Your task to perform on an android device: open app "HBO Max: Stream TV & Movies" (install if not already installed) and enter user name: "faring@outlook.com" and password: "appropriately" Image 0: 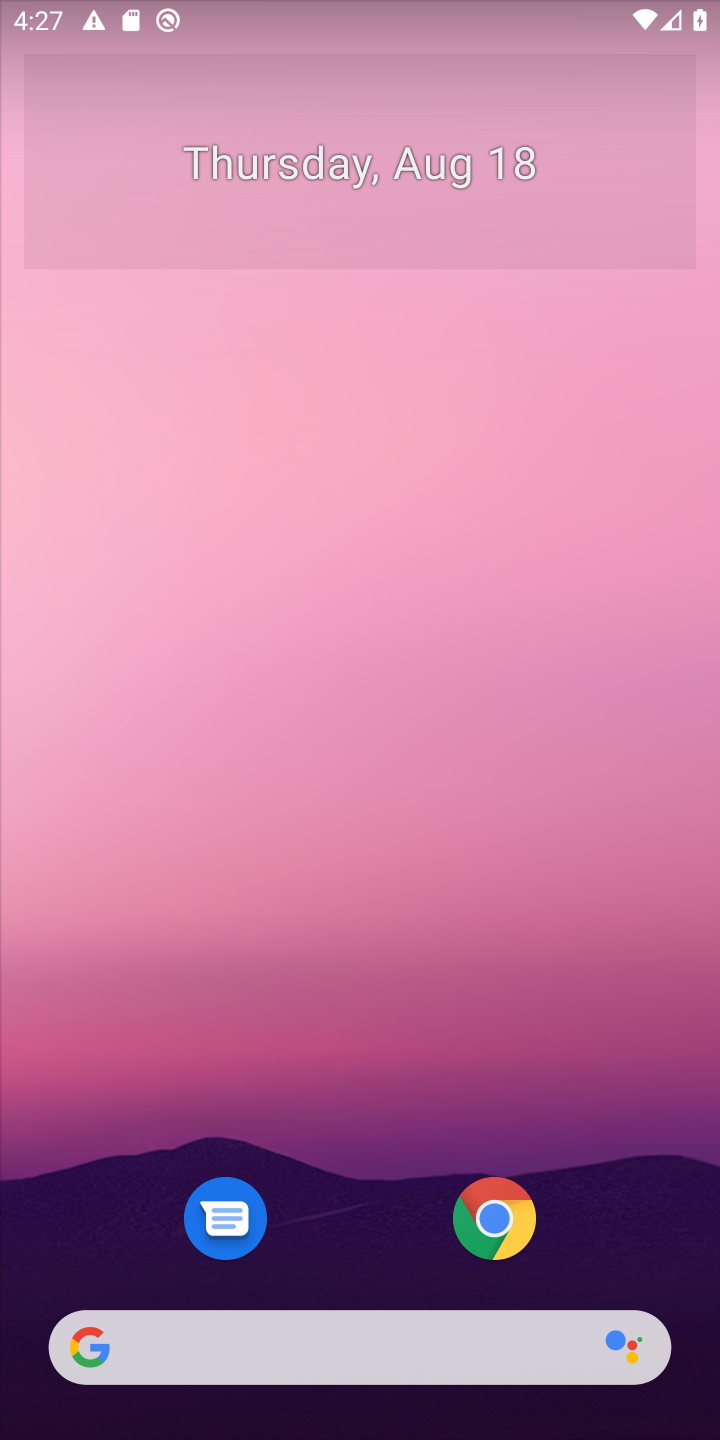
Step 0: drag from (381, 1122) to (353, 298)
Your task to perform on an android device: open app "HBO Max: Stream TV & Movies" (install if not already installed) and enter user name: "faring@outlook.com" and password: "appropriately" Image 1: 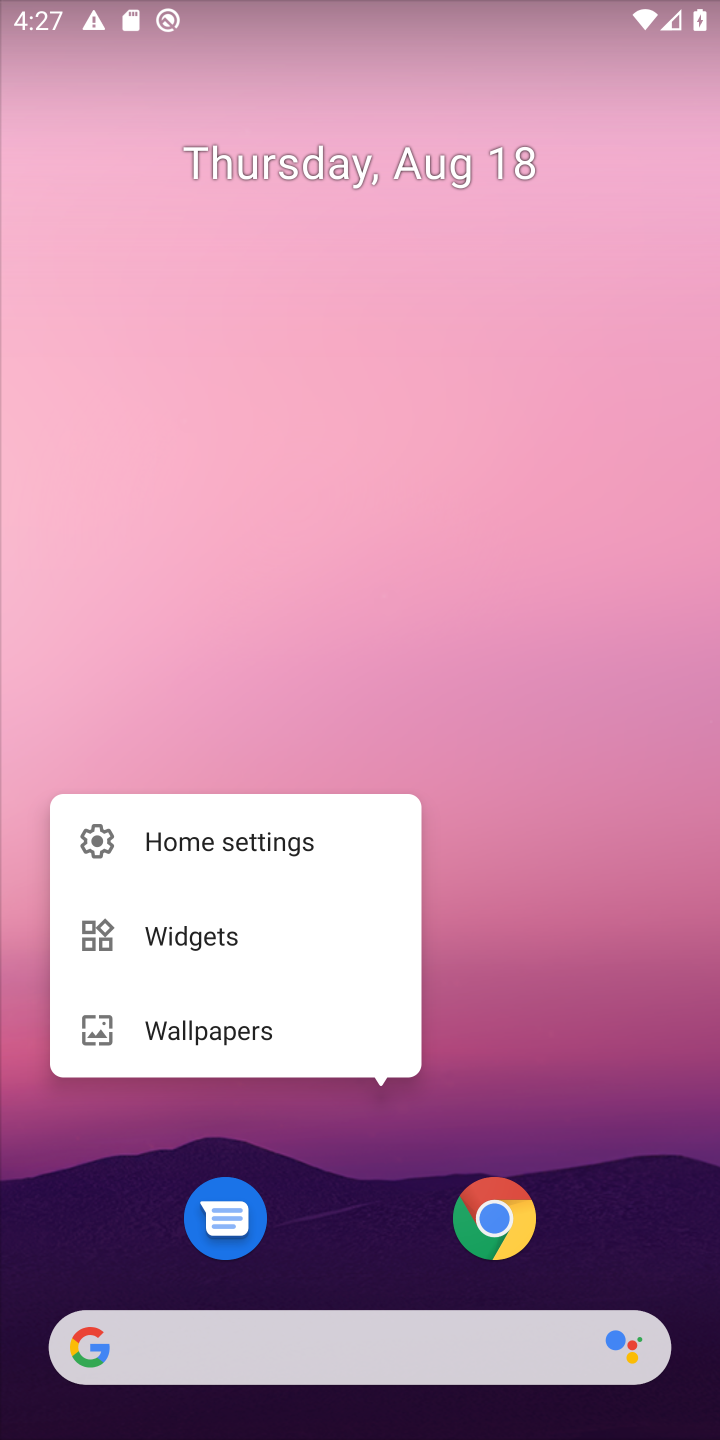
Step 1: click (376, 735)
Your task to perform on an android device: open app "HBO Max: Stream TV & Movies" (install if not already installed) and enter user name: "faring@outlook.com" and password: "appropriately" Image 2: 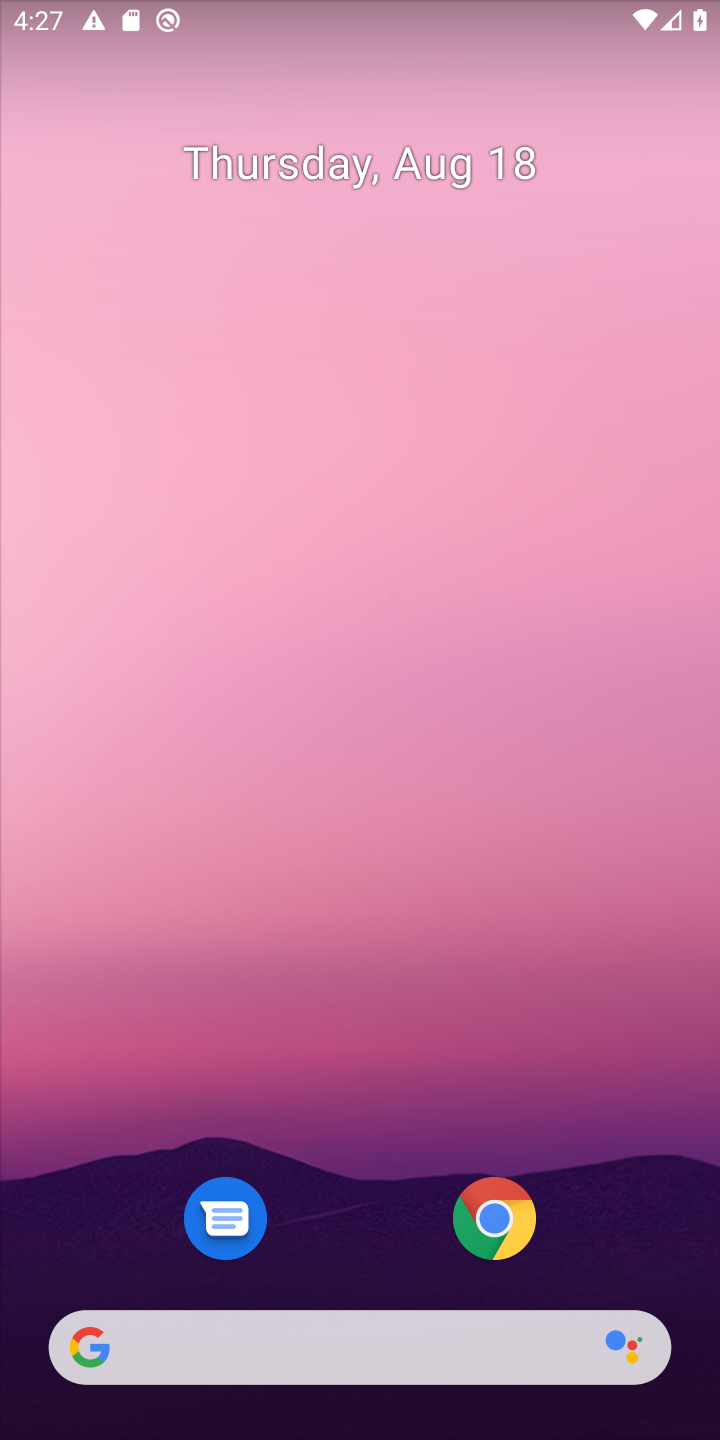
Step 2: drag from (313, 1116) to (372, 296)
Your task to perform on an android device: open app "HBO Max: Stream TV & Movies" (install if not already installed) and enter user name: "faring@outlook.com" and password: "appropriately" Image 3: 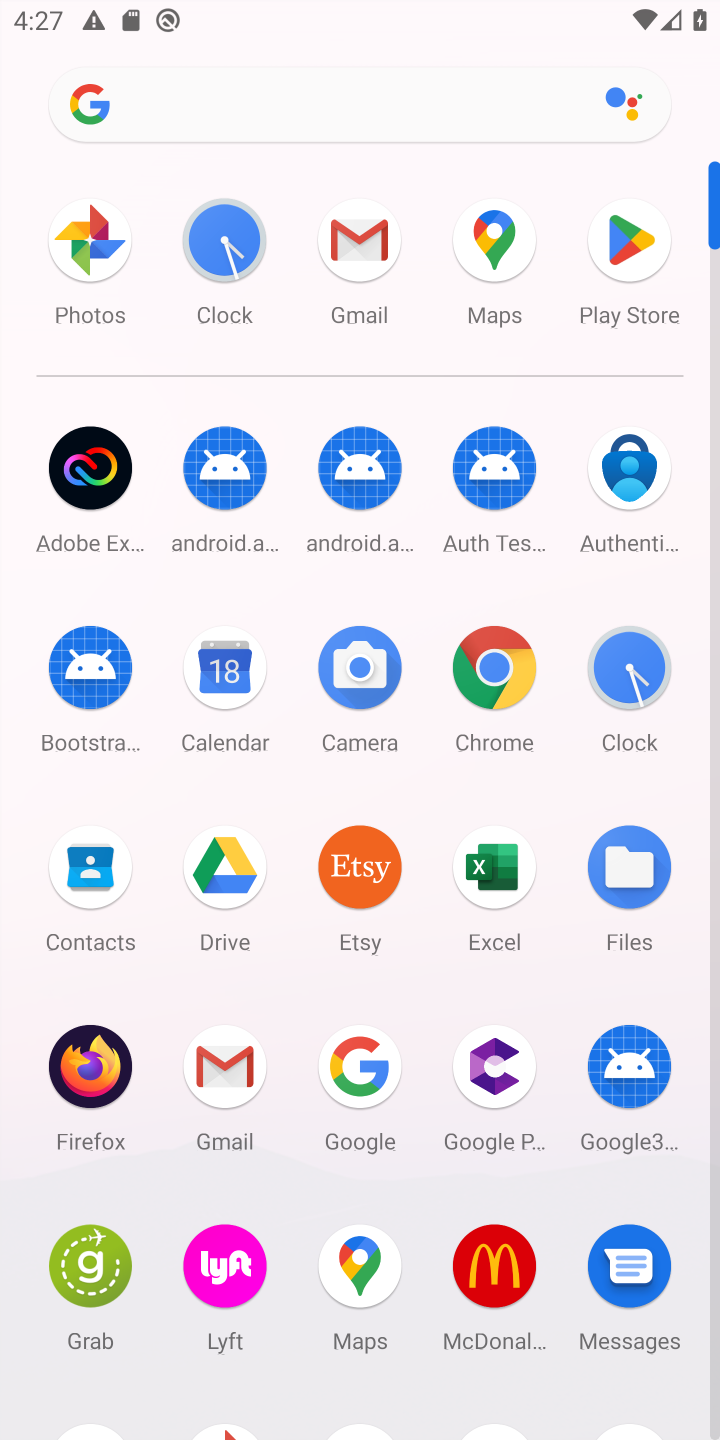
Step 3: click (625, 255)
Your task to perform on an android device: open app "HBO Max: Stream TV & Movies" (install if not already installed) and enter user name: "faring@outlook.com" and password: "appropriately" Image 4: 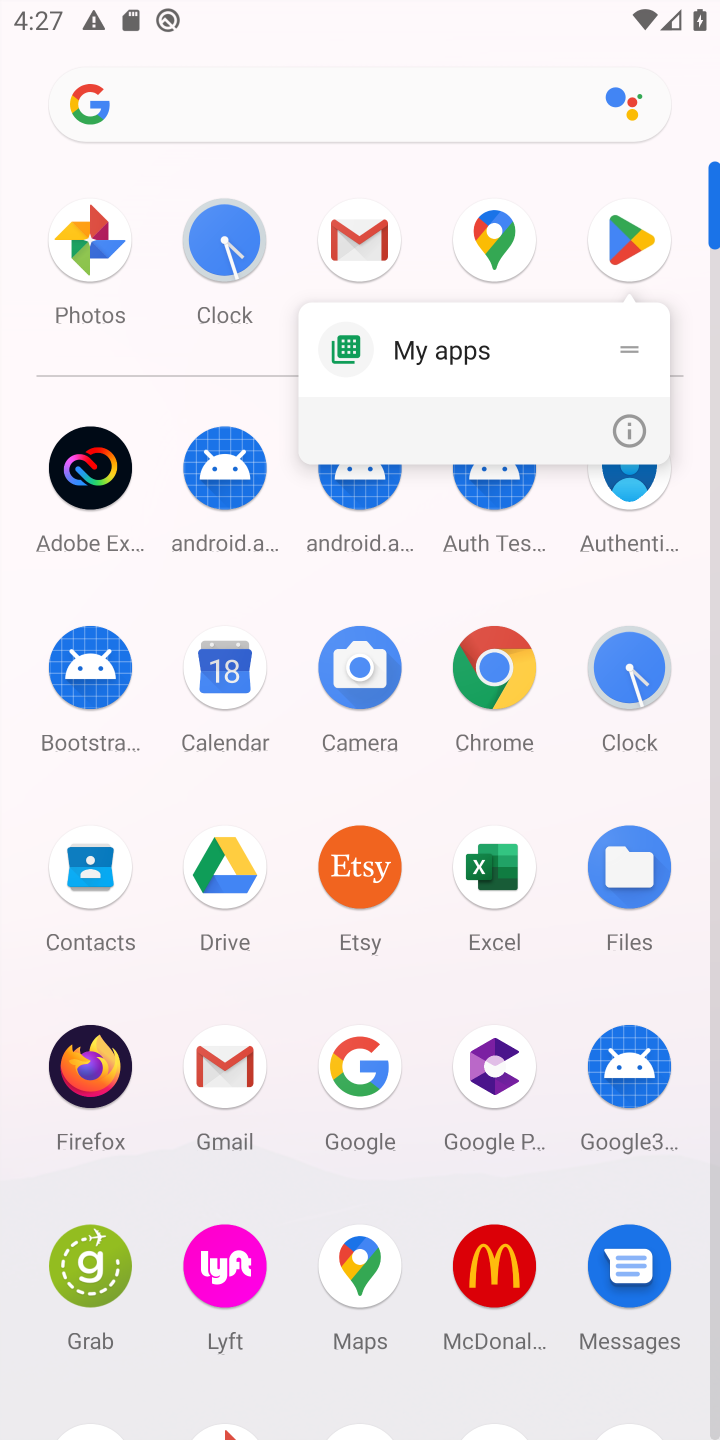
Step 4: click (625, 255)
Your task to perform on an android device: open app "HBO Max: Stream TV & Movies" (install if not already installed) and enter user name: "faring@outlook.com" and password: "appropriately" Image 5: 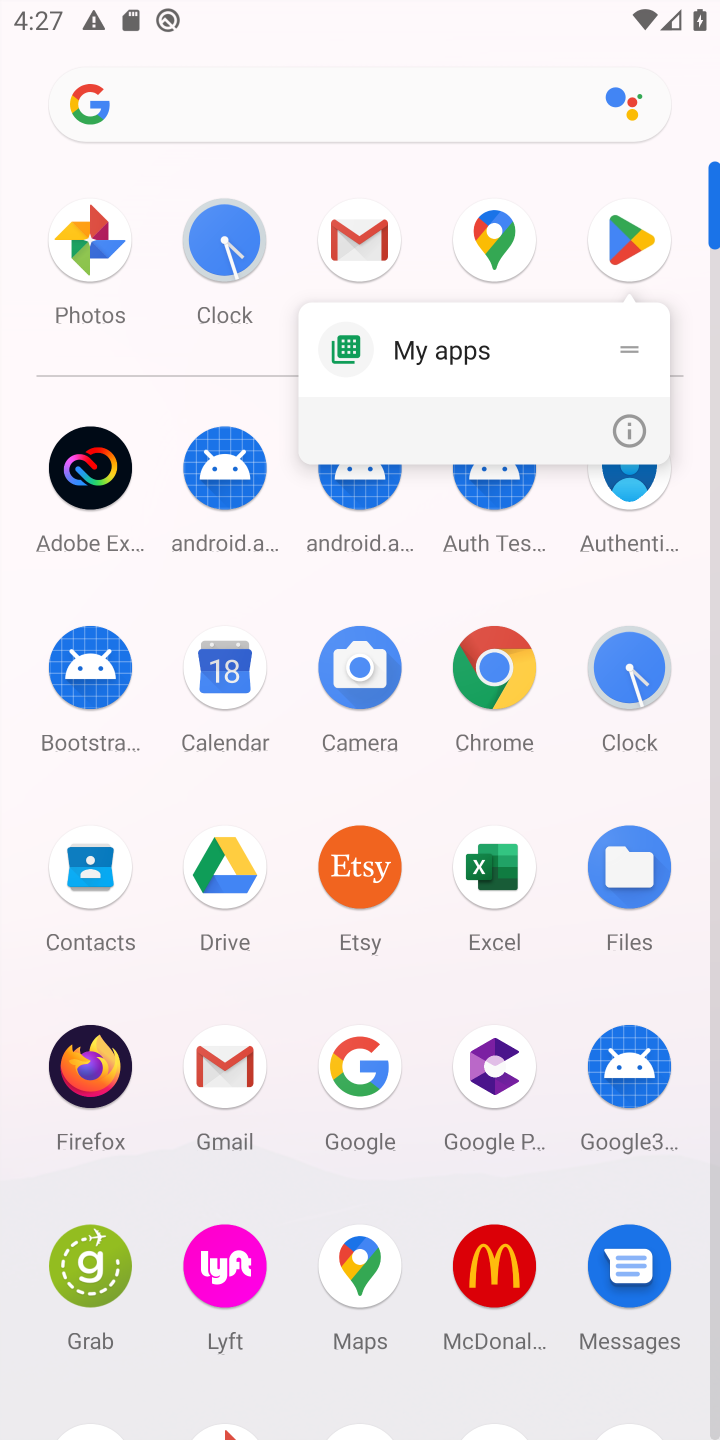
Step 5: click (623, 244)
Your task to perform on an android device: open app "HBO Max: Stream TV & Movies" (install if not already installed) and enter user name: "faring@outlook.com" and password: "appropriately" Image 6: 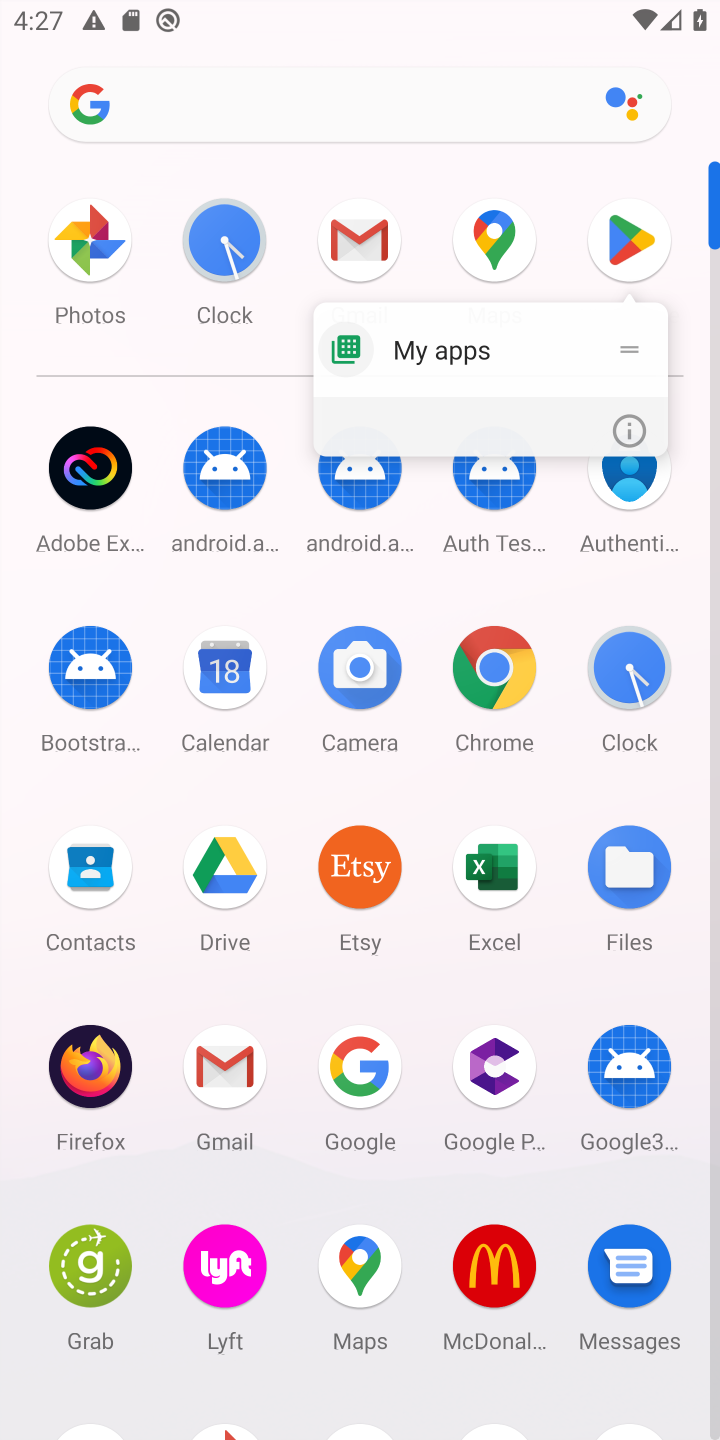
Step 6: click (656, 231)
Your task to perform on an android device: open app "HBO Max: Stream TV & Movies" (install if not already installed) and enter user name: "faring@outlook.com" and password: "appropriately" Image 7: 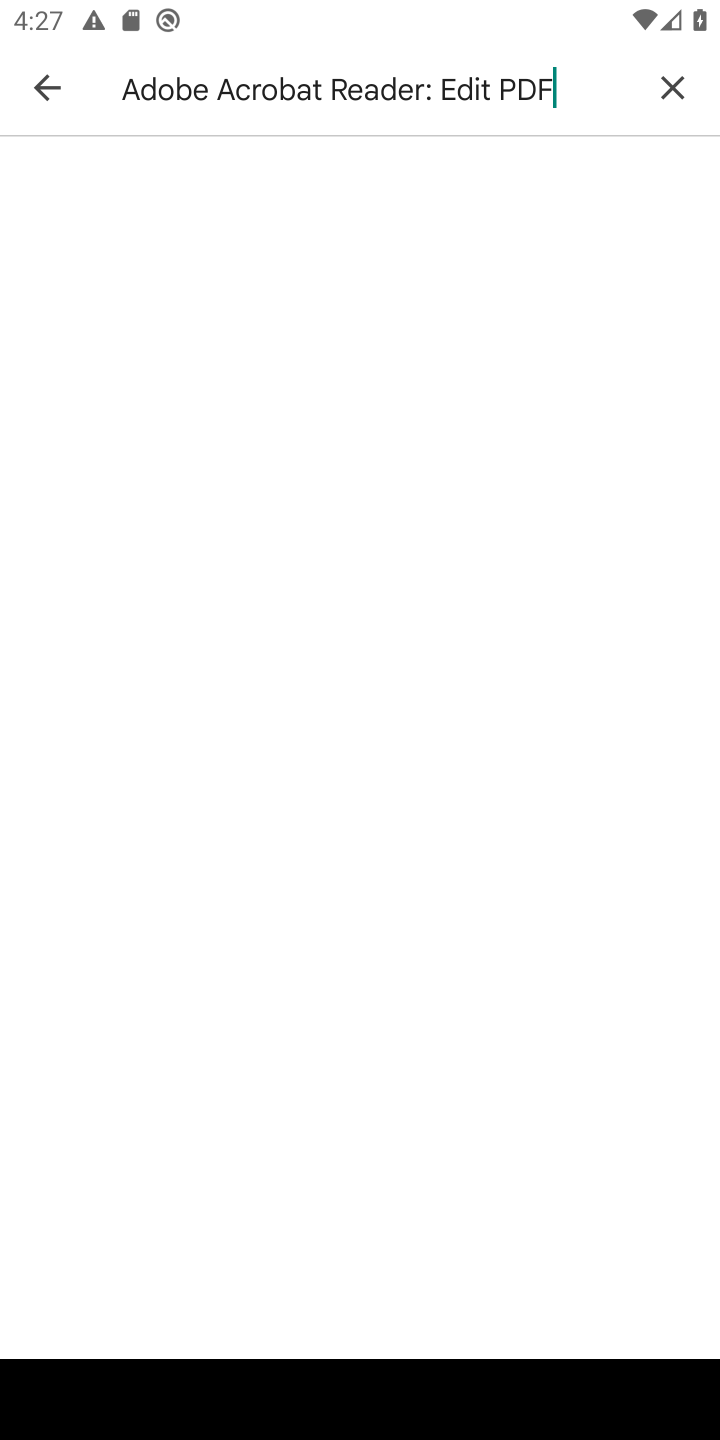
Step 7: click (665, 75)
Your task to perform on an android device: open app "HBO Max: Stream TV & Movies" (install if not already installed) and enter user name: "faring@outlook.com" and password: "appropriately" Image 8: 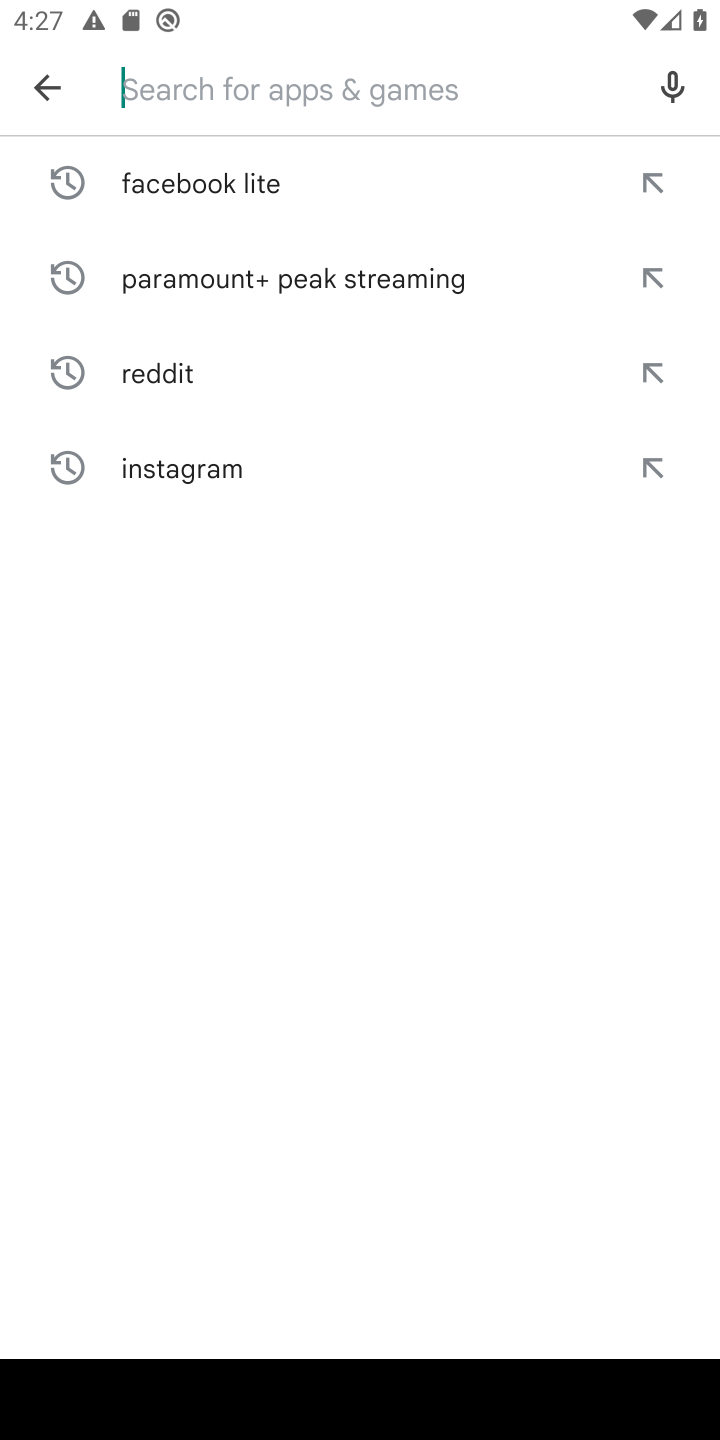
Step 8: type "HBO Max: Stream TV & Movies"
Your task to perform on an android device: open app "HBO Max: Stream TV & Movies" (install if not already installed) and enter user name: "faring@outlook.com" and password: "appropriately" Image 9: 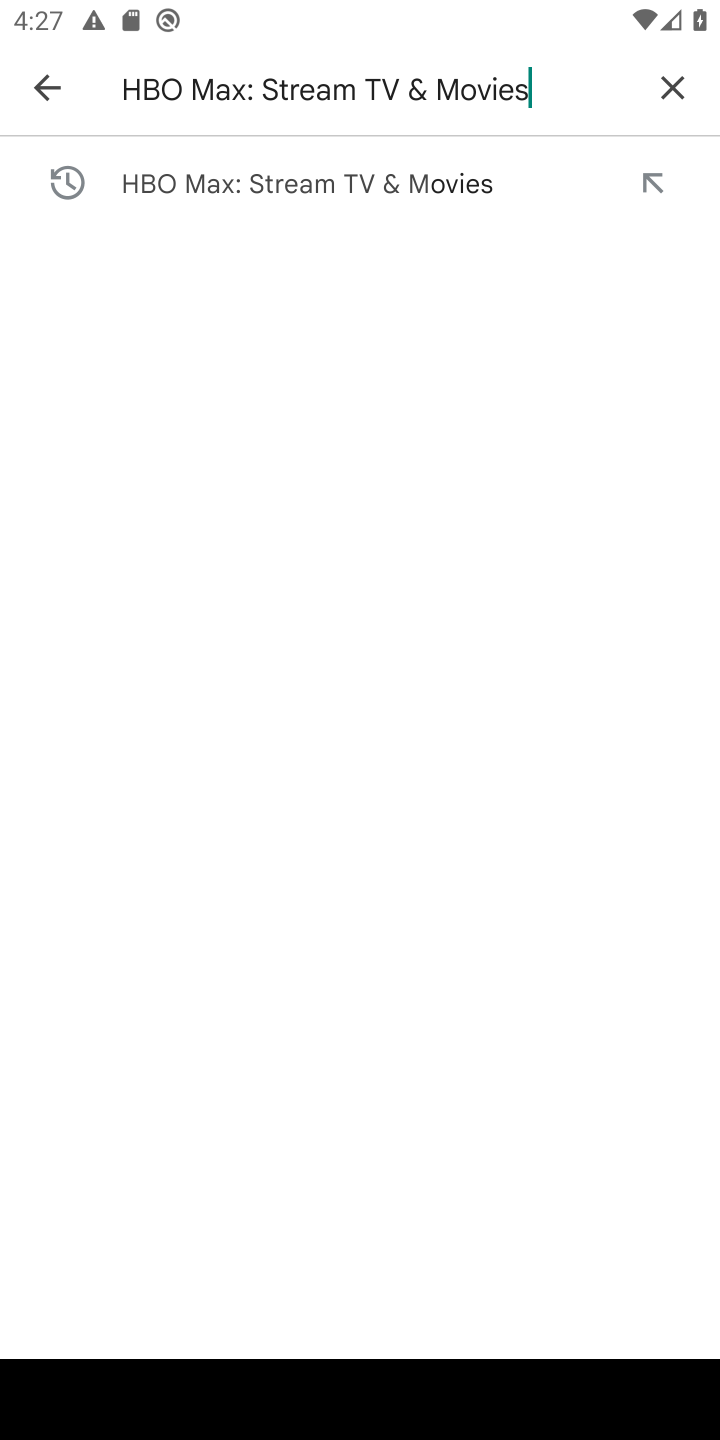
Step 9: type ""
Your task to perform on an android device: open app "HBO Max: Stream TV & Movies" (install if not already installed) and enter user name: "faring@outlook.com" and password: "appropriately" Image 10: 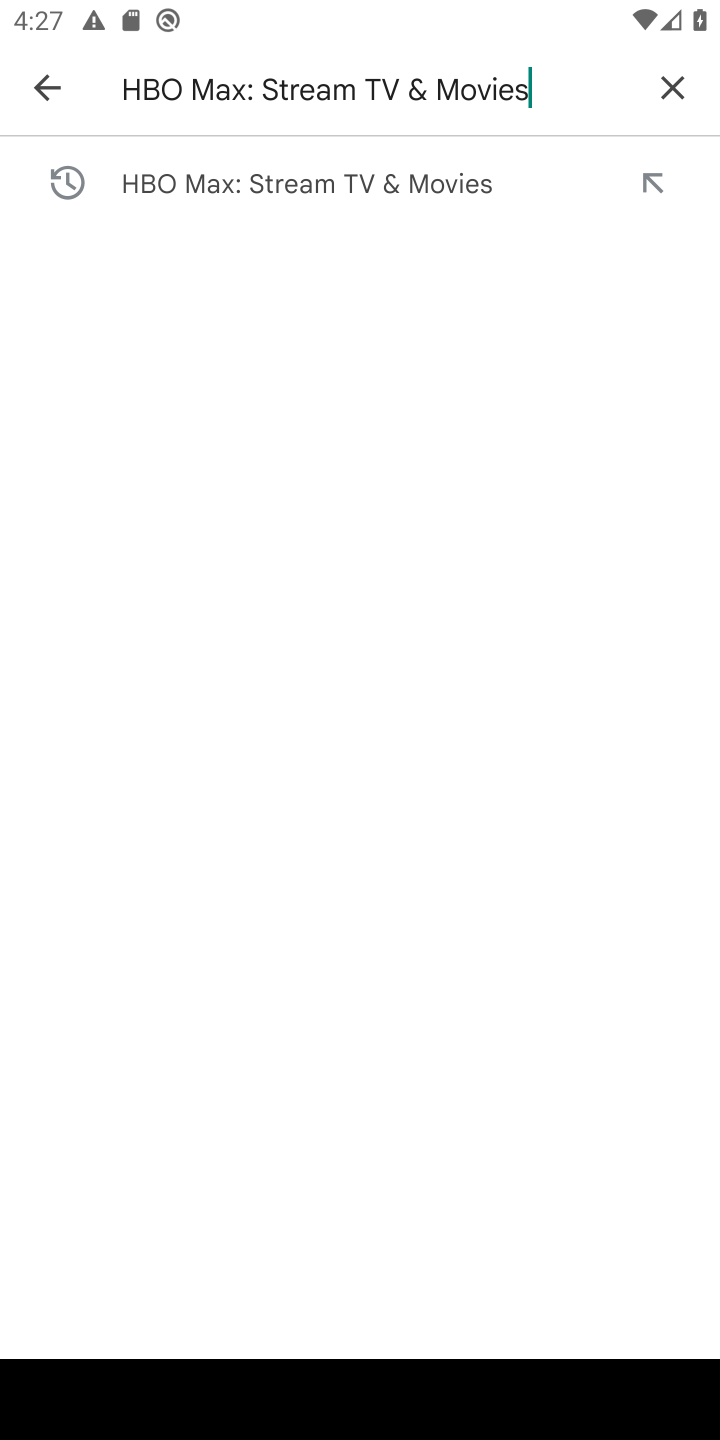
Step 10: click (331, 193)
Your task to perform on an android device: open app "HBO Max: Stream TV & Movies" (install if not already installed) and enter user name: "faring@outlook.com" and password: "appropriately" Image 11: 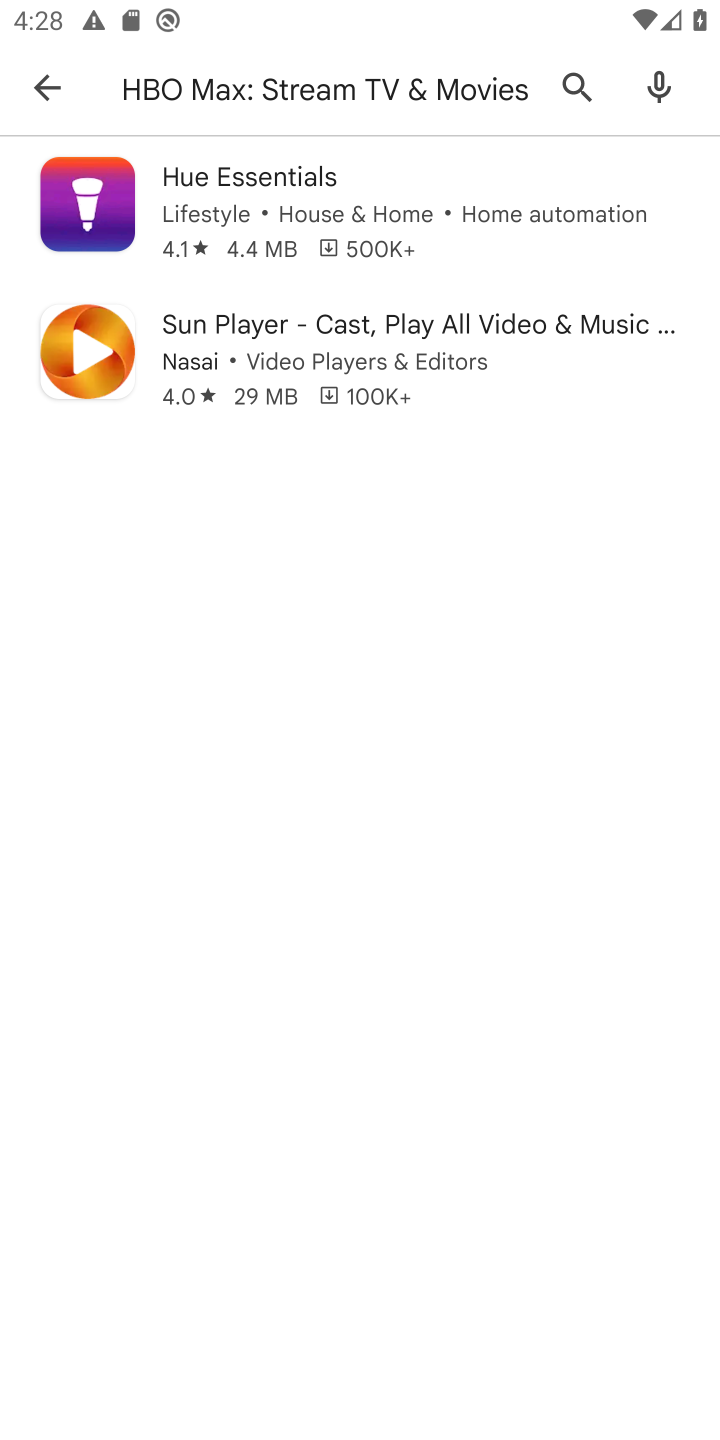
Step 11: task complete